Your task to perform on an android device: What's the weather going to be this weekend? Image 0: 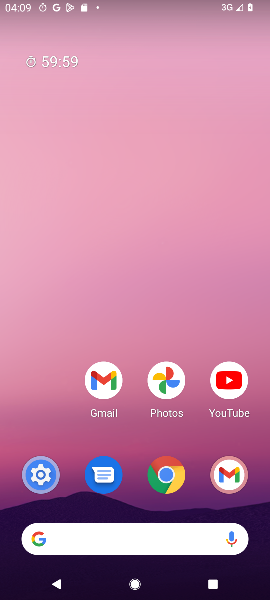
Step 0: press home button
Your task to perform on an android device: What's the weather going to be this weekend? Image 1: 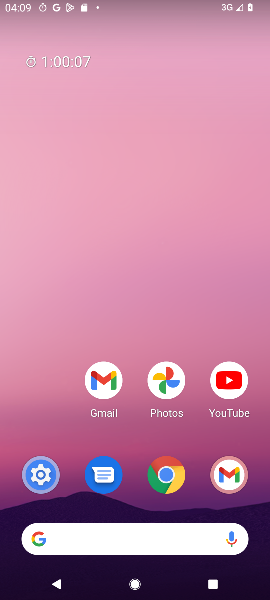
Step 1: click (108, 534)
Your task to perform on an android device: What's the weather going to be this weekend? Image 2: 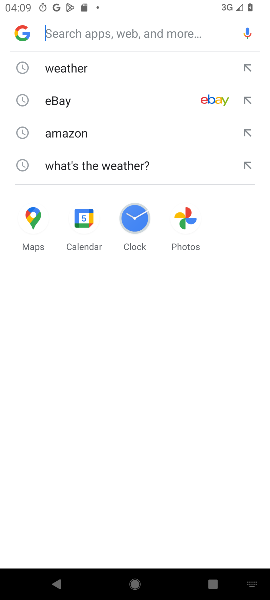
Step 2: click (76, 68)
Your task to perform on an android device: What's the weather going to be this weekend? Image 3: 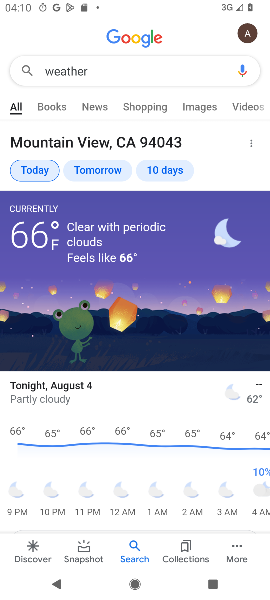
Step 3: click (163, 172)
Your task to perform on an android device: What's the weather going to be this weekend? Image 4: 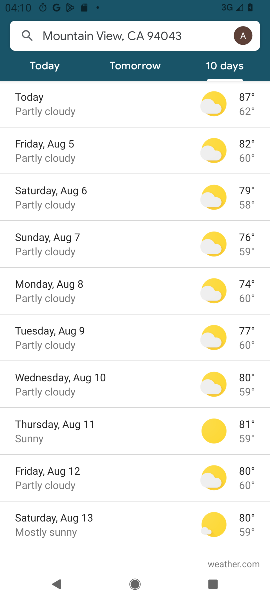
Step 4: click (92, 238)
Your task to perform on an android device: What's the weather going to be this weekend? Image 5: 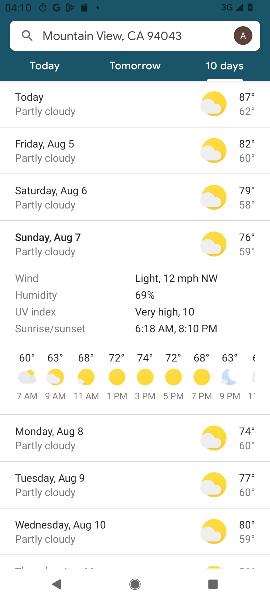
Step 5: task complete